Your task to perform on an android device: turn smart compose on in the gmail app Image 0: 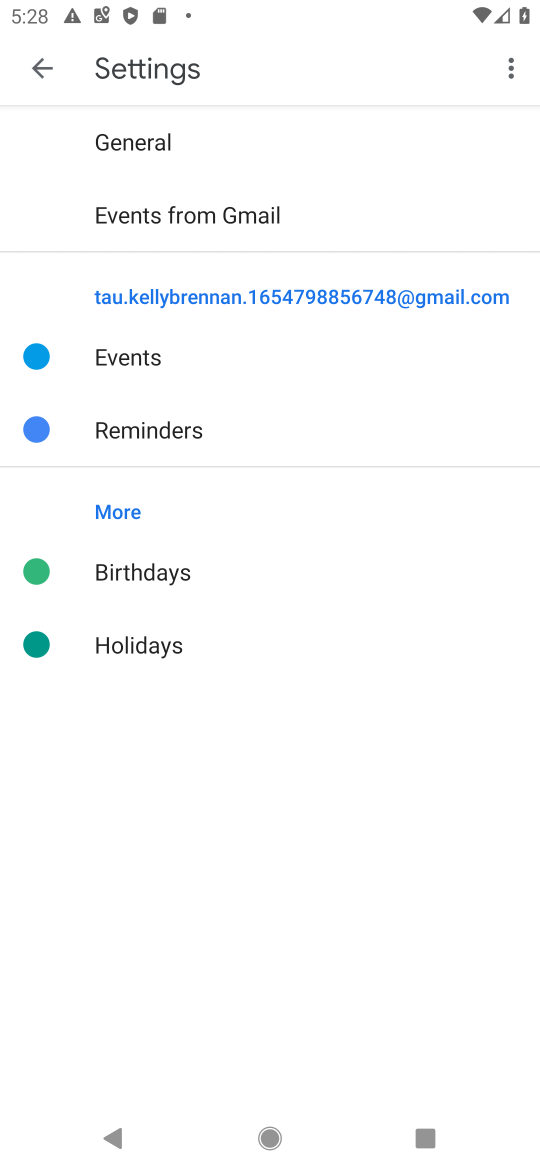
Step 0: press home button
Your task to perform on an android device: turn smart compose on in the gmail app Image 1: 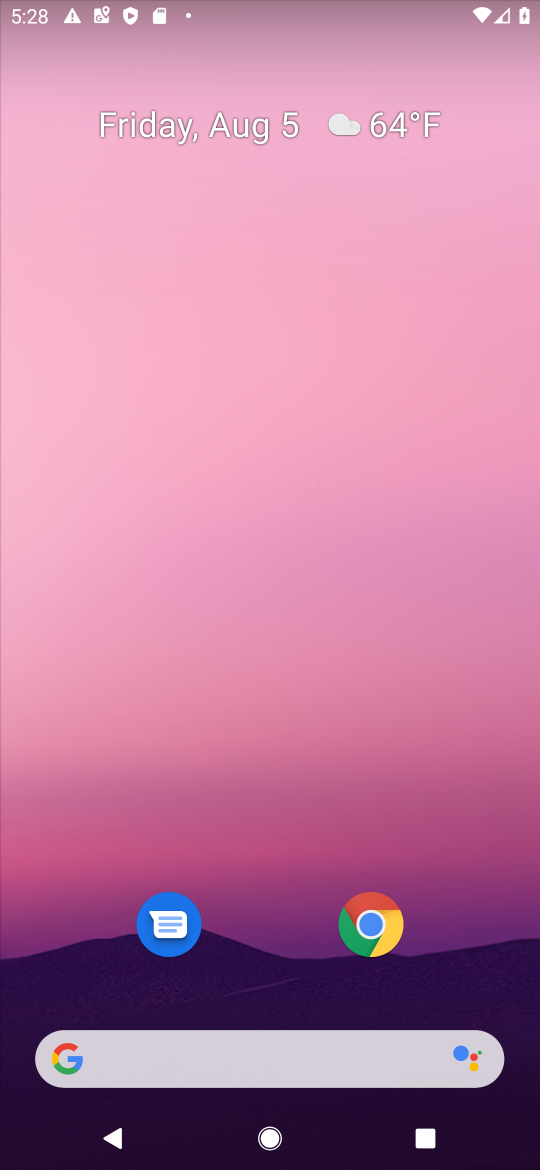
Step 1: drag from (208, 1132) to (331, 330)
Your task to perform on an android device: turn smart compose on in the gmail app Image 2: 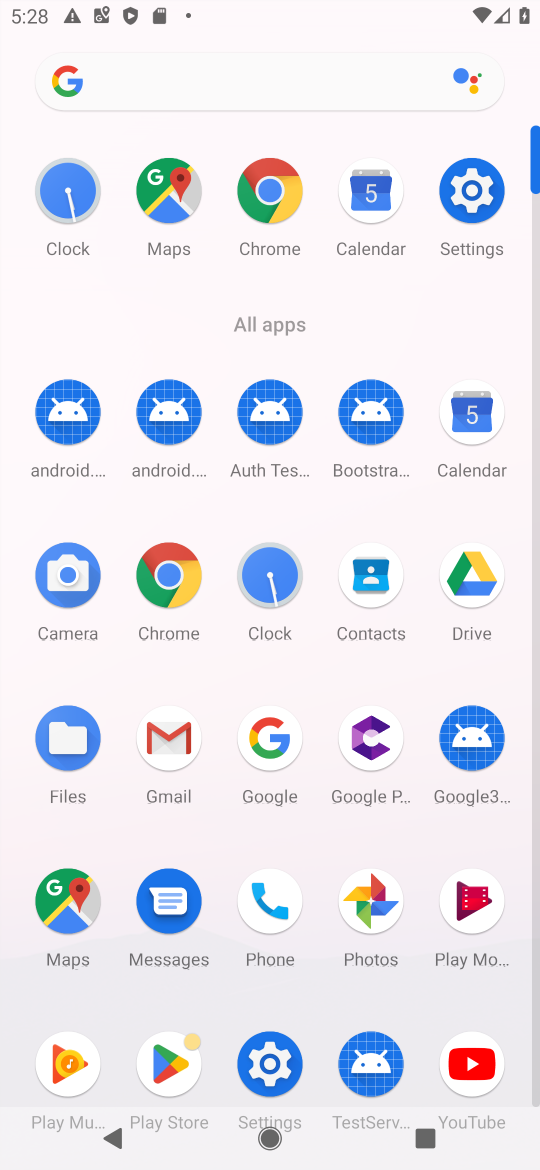
Step 2: click (180, 761)
Your task to perform on an android device: turn smart compose on in the gmail app Image 3: 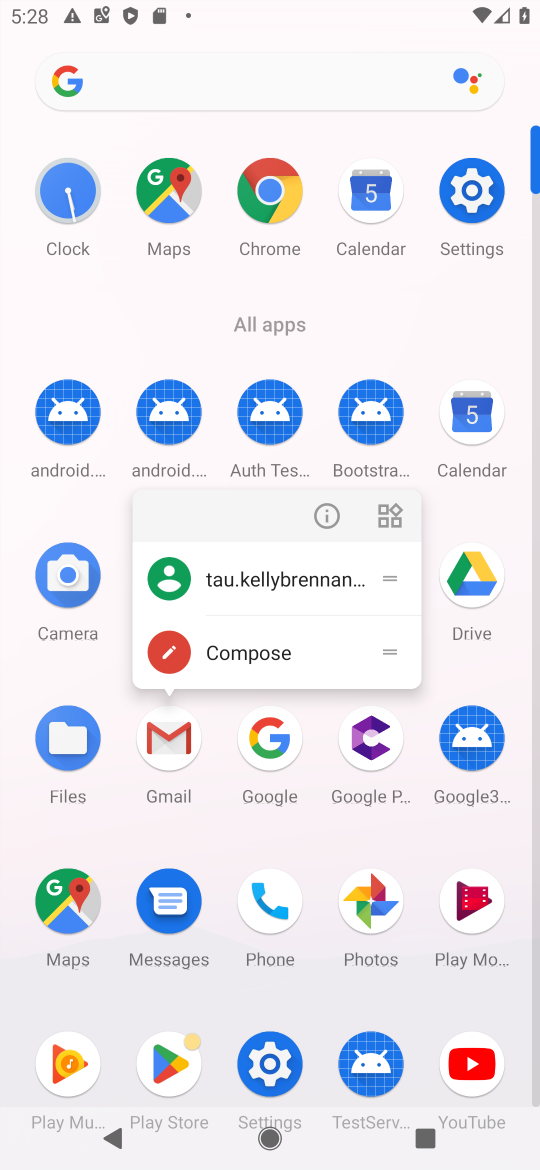
Step 3: click (180, 761)
Your task to perform on an android device: turn smart compose on in the gmail app Image 4: 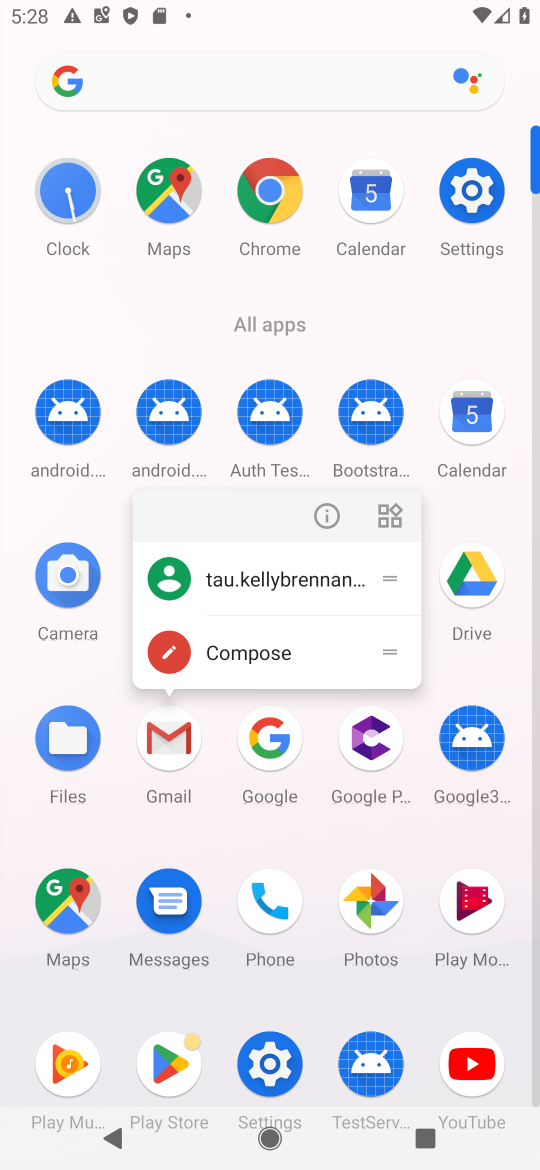
Step 4: click (180, 761)
Your task to perform on an android device: turn smart compose on in the gmail app Image 5: 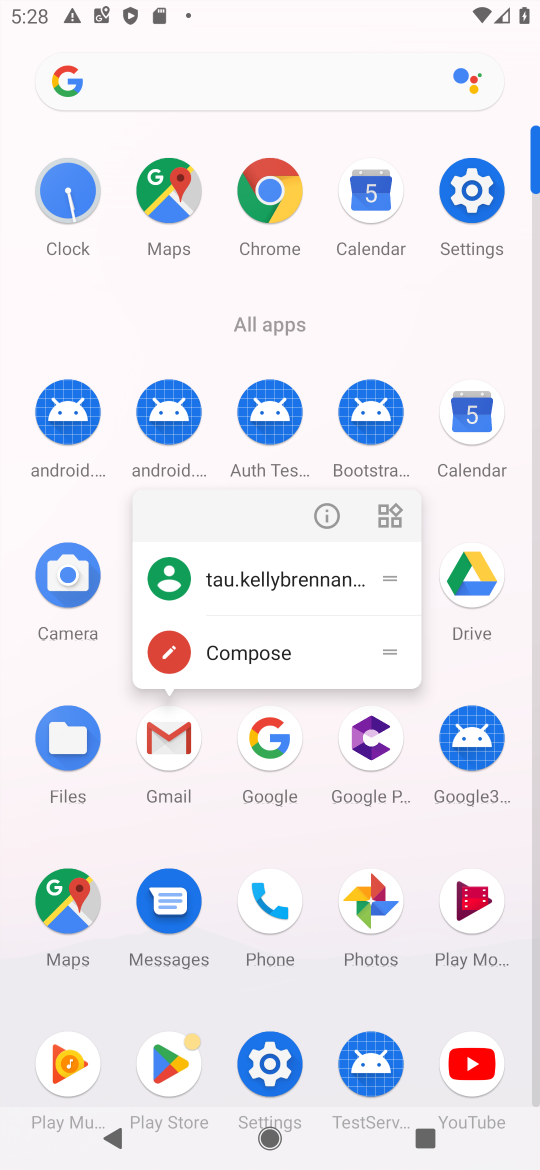
Step 5: click (151, 751)
Your task to perform on an android device: turn smart compose on in the gmail app Image 6: 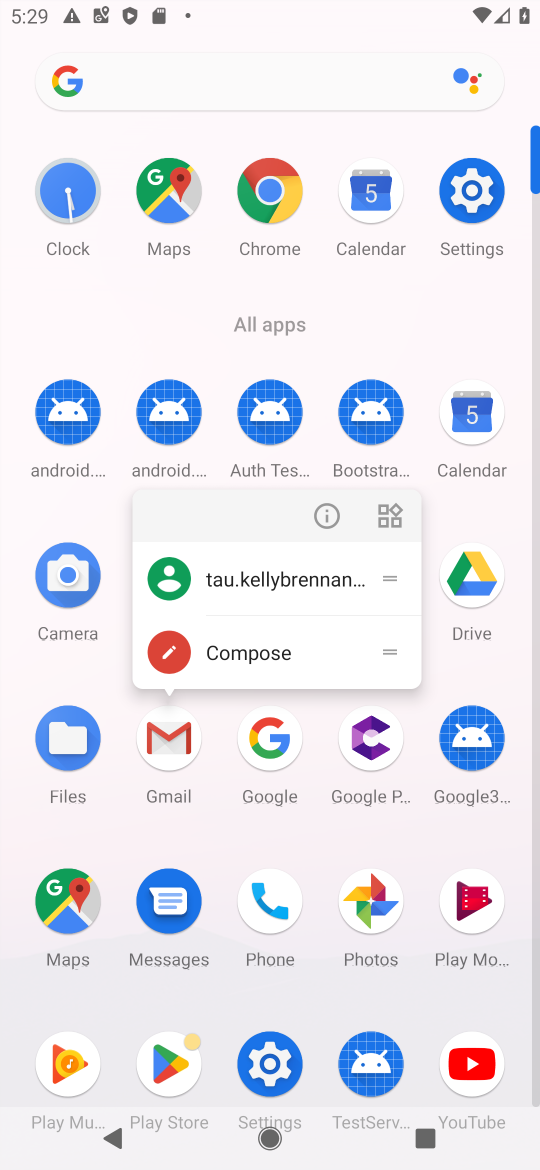
Step 6: click (151, 751)
Your task to perform on an android device: turn smart compose on in the gmail app Image 7: 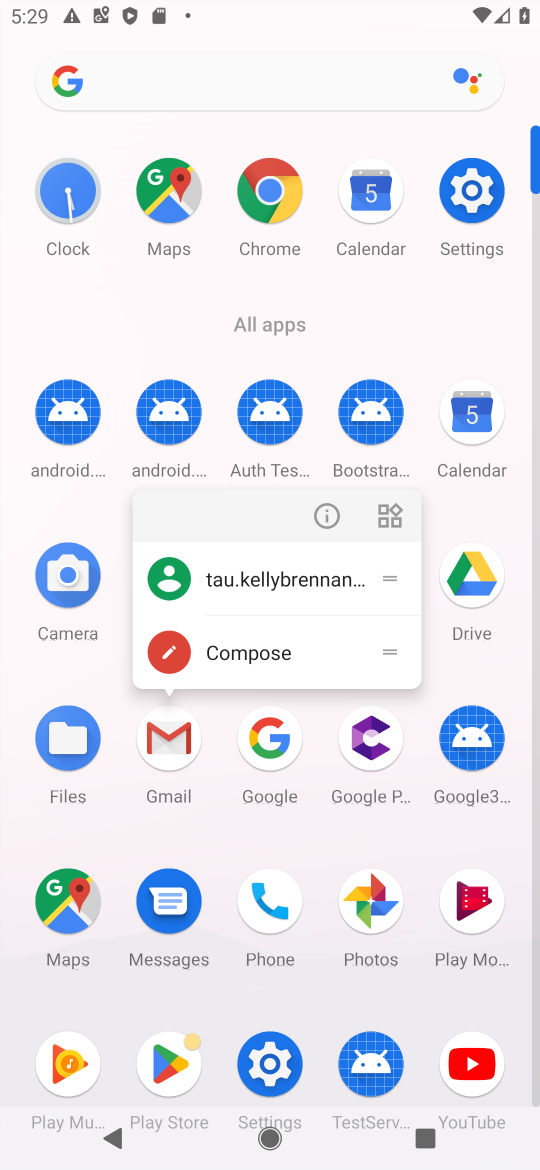
Step 7: click (167, 751)
Your task to perform on an android device: turn smart compose on in the gmail app Image 8: 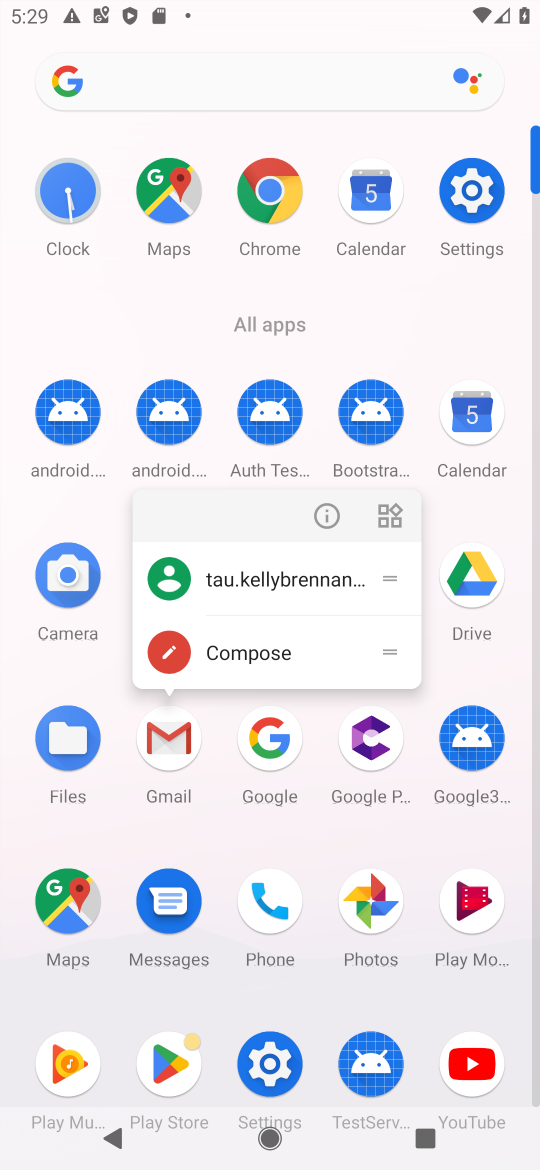
Step 8: click (167, 751)
Your task to perform on an android device: turn smart compose on in the gmail app Image 9: 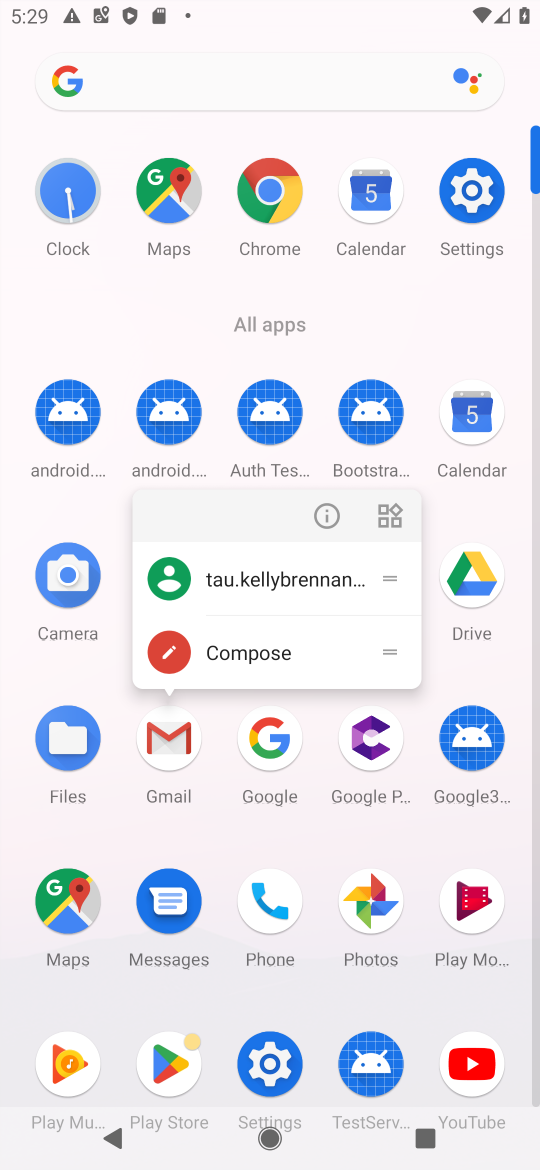
Step 9: click (162, 741)
Your task to perform on an android device: turn smart compose on in the gmail app Image 10: 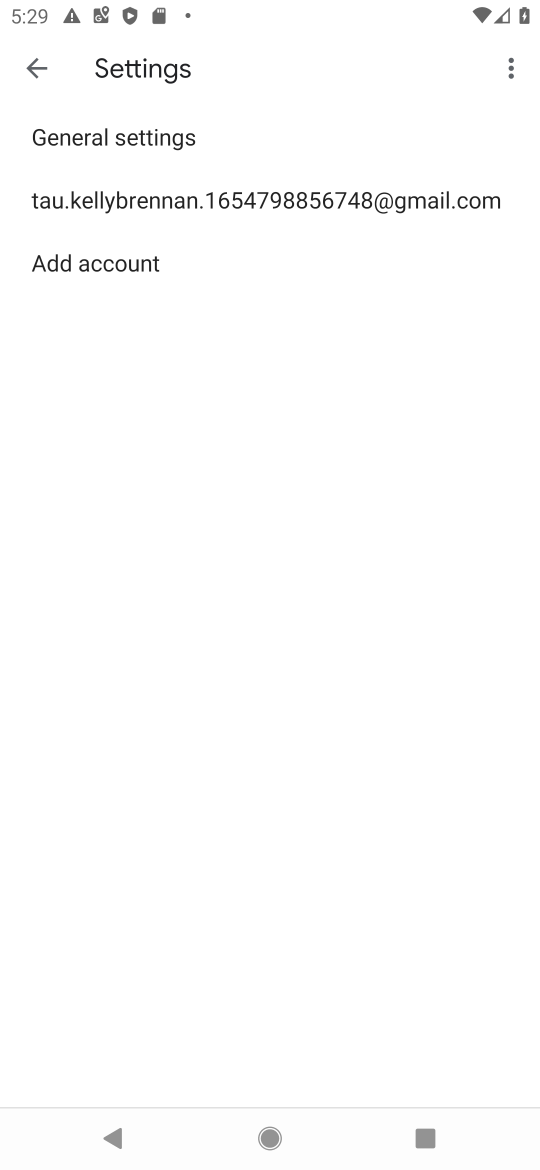
Step 10: click (375, 197)
Your task to perform on an android device: turn smart compose on in the gmail app Image 11: 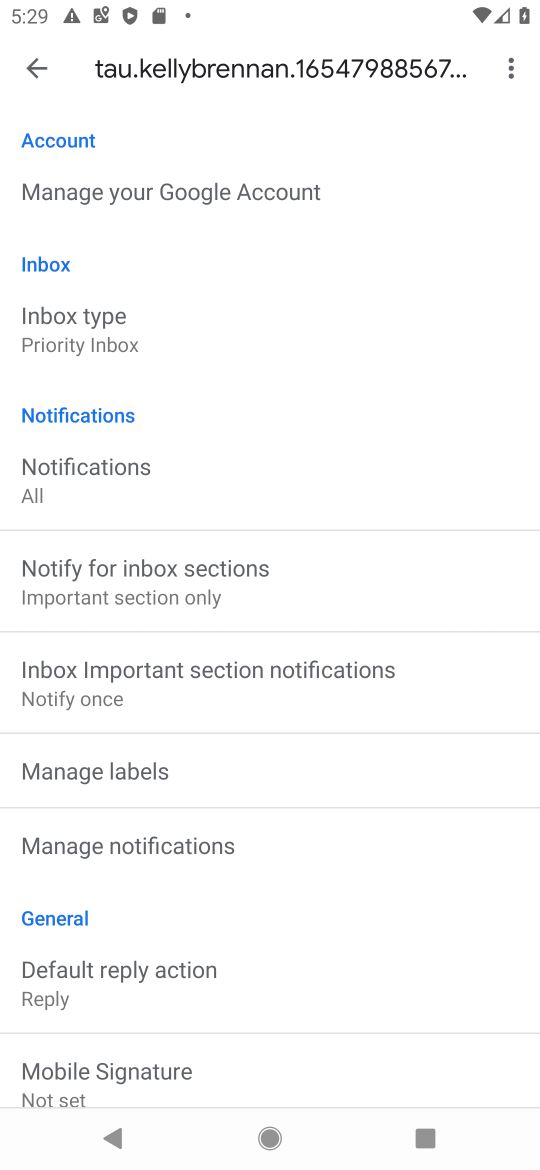
Step 11: task complete